Your task to perform on an android device: Turn off the flashlight Image 0: 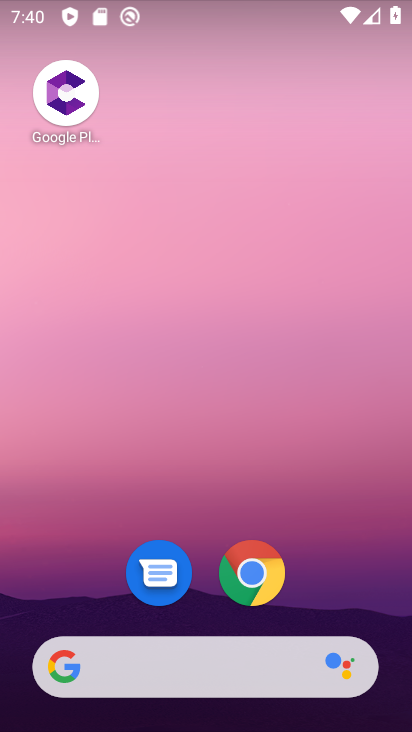
Step 0: drag from (202, 606) to (212, 342)
Your task to perform on an android device: Turn off the flashlight Image 1: 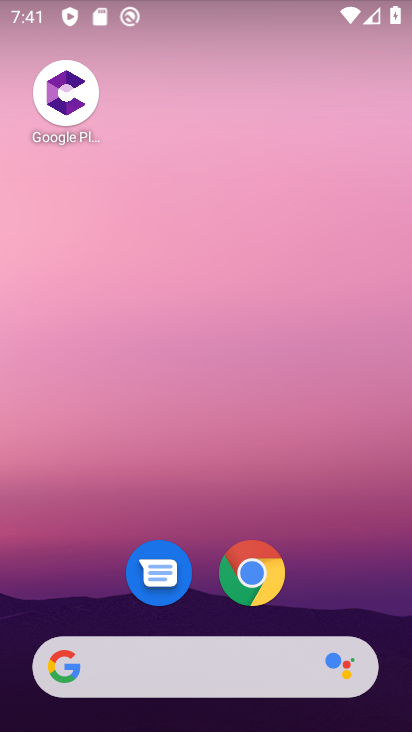
Step 1: drag from (192, 606) to (262, 170)
Your task to perform on an android device: Turn off the flashlight Image 2: 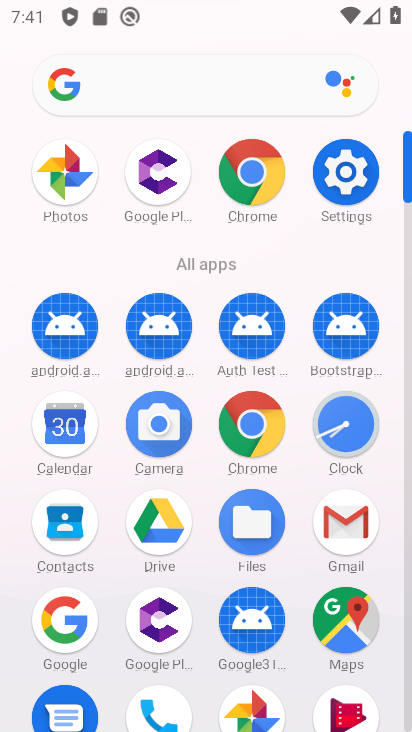
Step 2: click (342, 173)
Your task to perform on an android device: Turn off the flashlight Image 3: 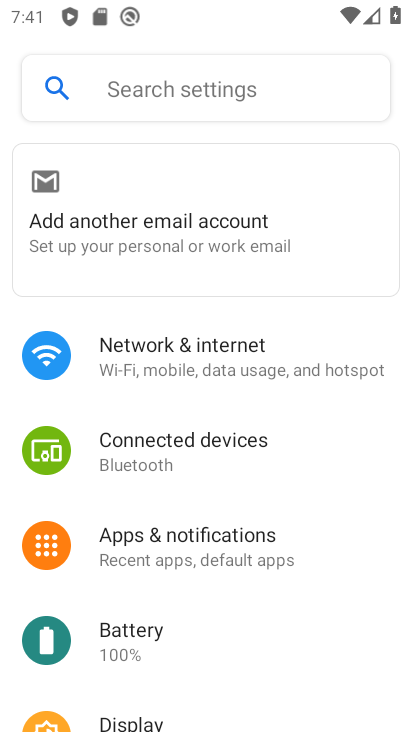
Step 3: click (226, 84)
Your task to perform on an android device: Turn off the flashlight Image 4: 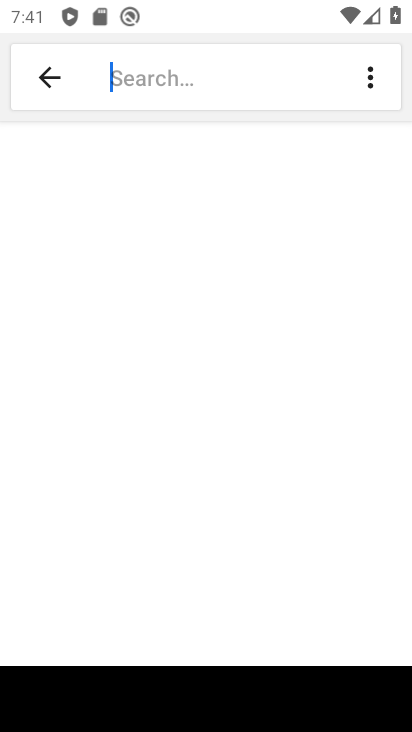
Step 4: type "flashlight"
Your task to perform on an android device: Turn off the flashlight Image 5: 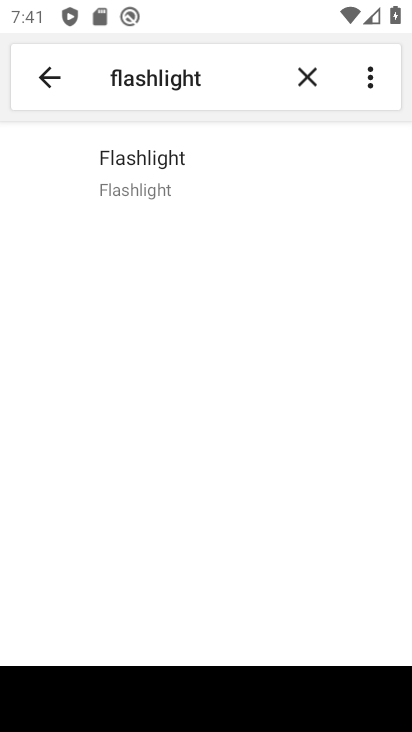
Step 5: click (229, 164)
Your task to perform on an android device: Turn off the flashlight Image 6: 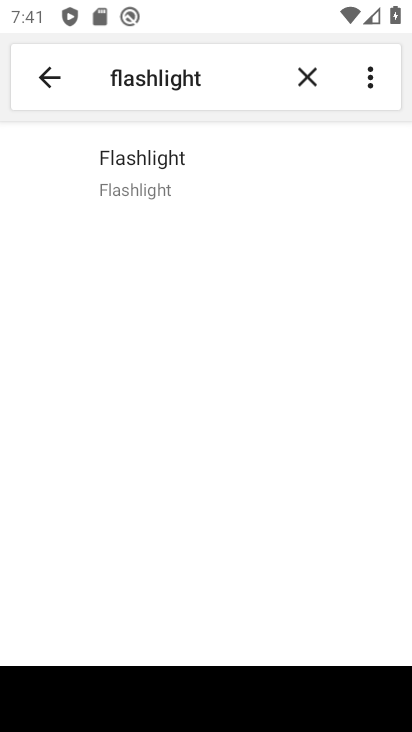
Step 6: click (229, 164)
Your task to perform on an android device: Turn off the flashlight Image 7: 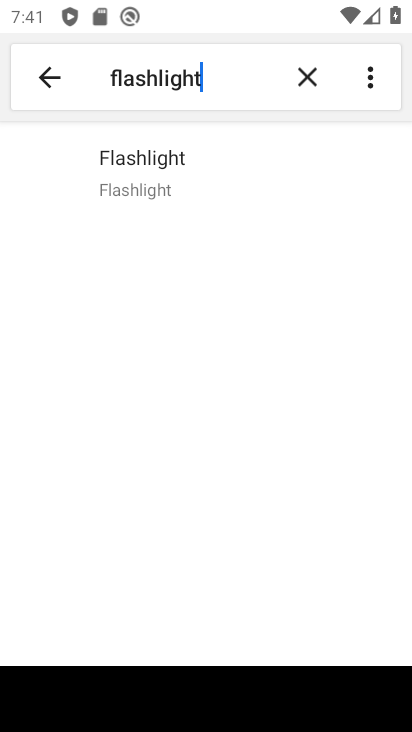
Step 7: click (230, 163)
Your task to perform on an android device: Turn off the flashlight Image 8: 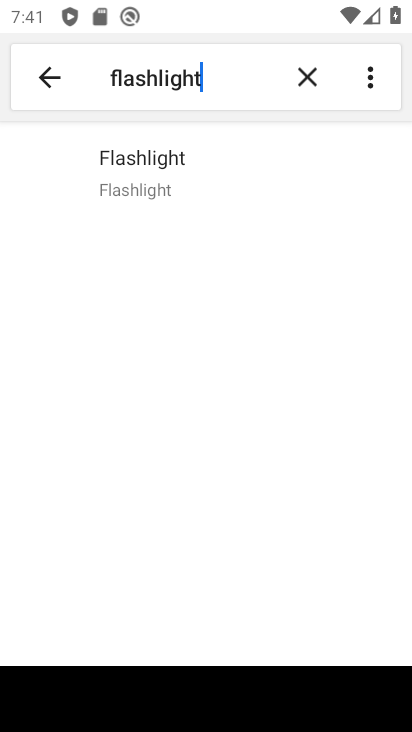
Step 8: task complete